Your task to perform on an android device: Open Youtube and go to the subscriptions tab Image 0: 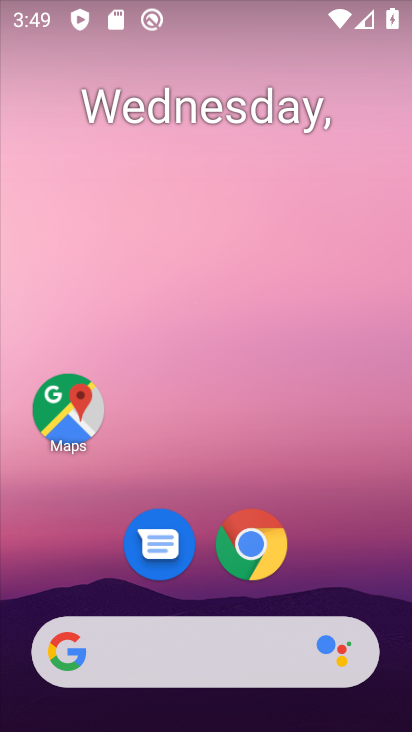
Step 0: drag from (205, 605) to (301, 35)
Your task to perform on an android device: Open Youtube and go to the subscriptions tab Image 1: 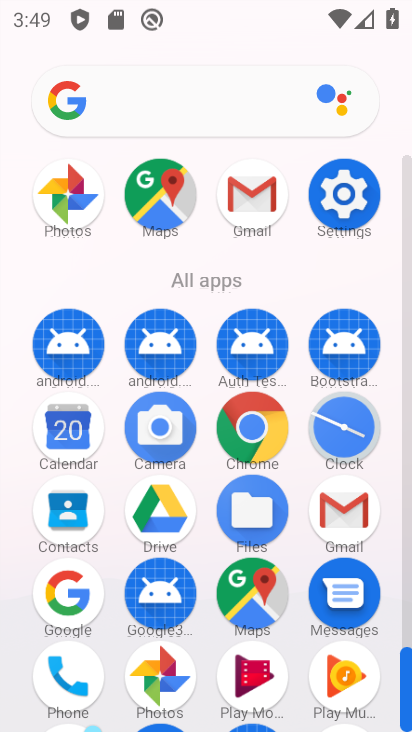
Step 1: drag from (263, 577) to (330, 352)
Your task to perform on an android device: Open Youtube and go to the subscriptions tab Image 2: 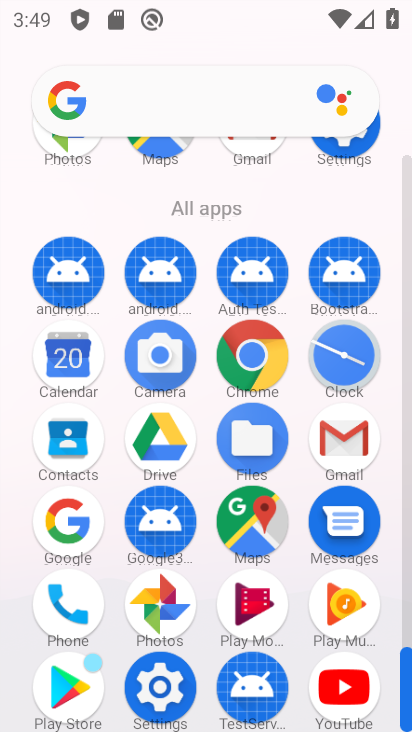
Step 2: click (337, 679)
Your task to perform on an android device: Open Youtube and go to the subscriptions tab Image 3: 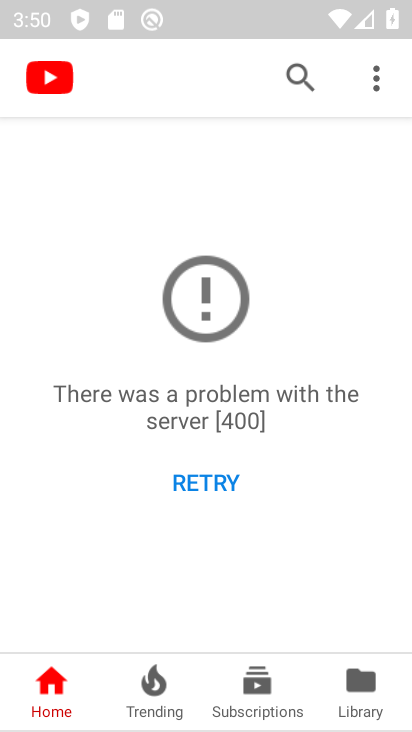
Step 3: click (259, 721)
Your task to perform on an android device: Open Youtube and go to the subscriptions tab Image 4: 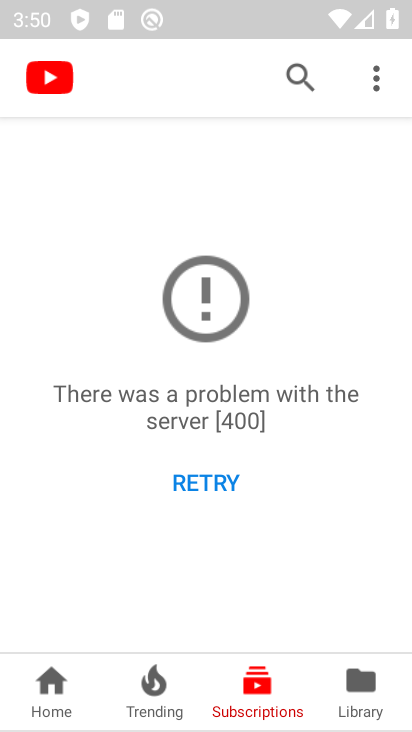
Step 4: task complete